Your task to perform on an android device: Open sound settings Image 0: 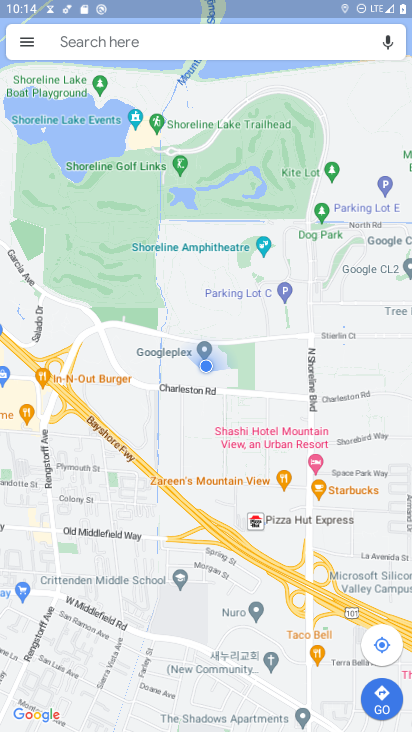
Step 0: press home button
Your task to perform on an android device: Open sound settings Image 1: 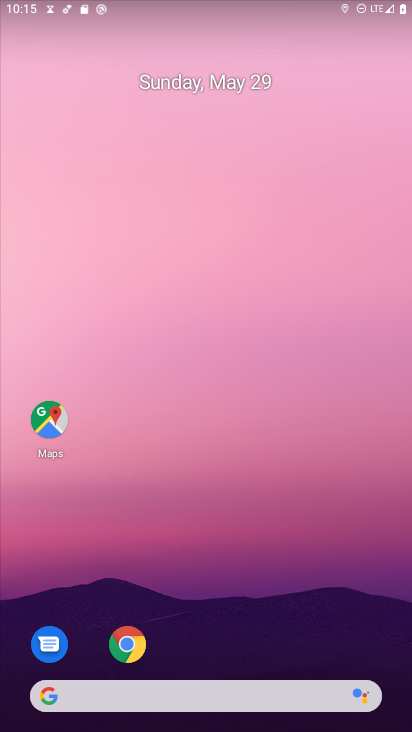
Step 1: drag from (128, 731) to (197, 73)
Your task to perform on an android device: Open sound settings Image 2: 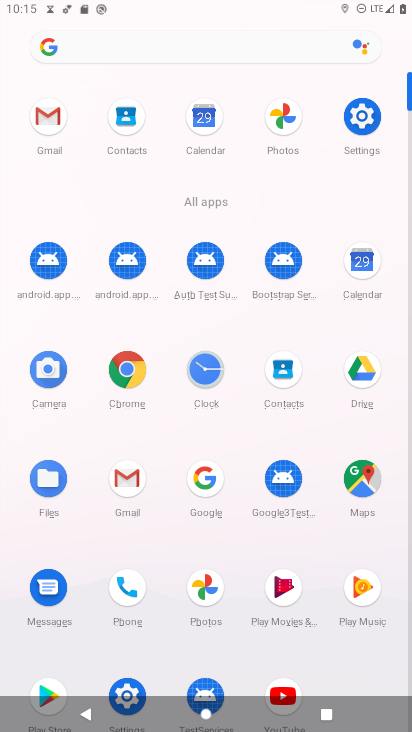
Step 2: click (358, 124)
Your task to perform on an android device: Open sound settings Image 3: 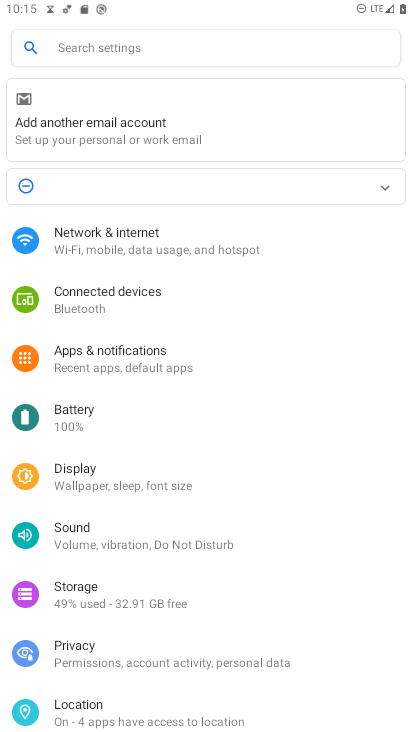
Step 3: click (103, 545)
Your task to perform on an android device: Open sound settings Image 4: 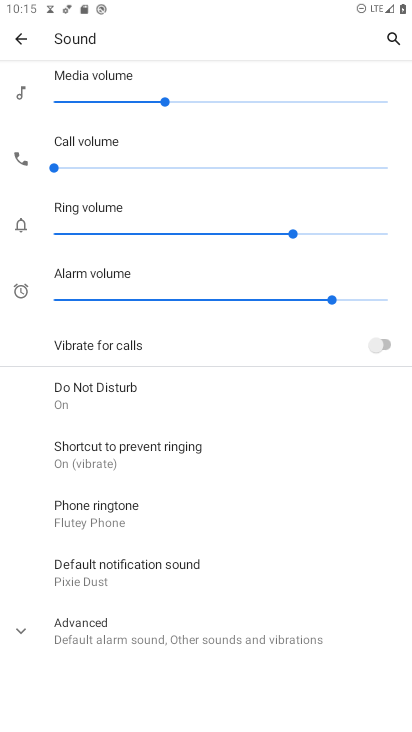
Step 4: task complete